Your task to perform on an android device: Find coffee shops on Maps Image 0: 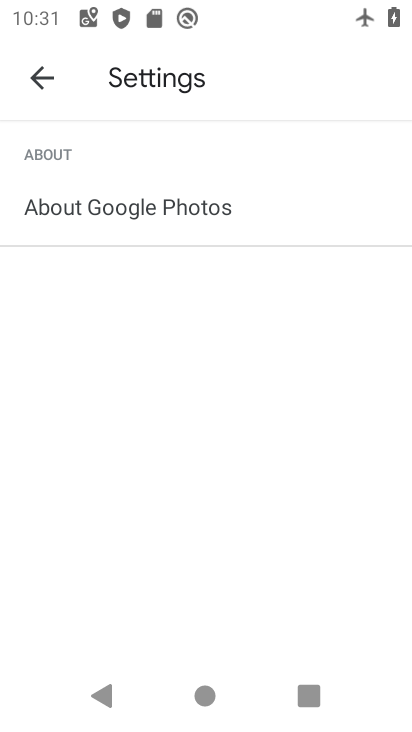
Step 0: press home button
Your task to perform on an android device: Find coffee shops on Maps Image 1: 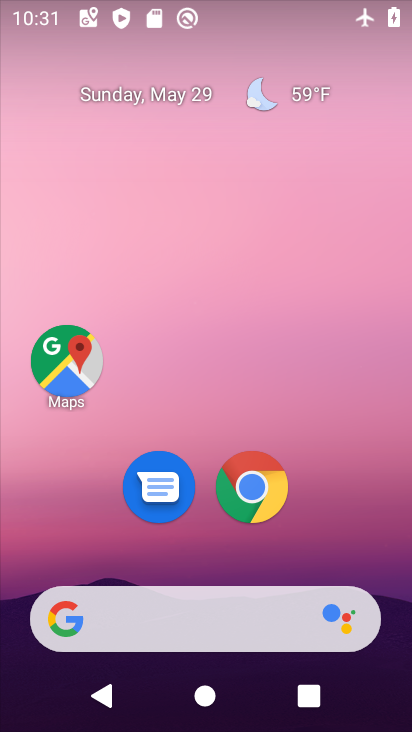
Step 1: click (75, 370)
Your task to perform on an android device: Find coffee shops on Maps Image 2: 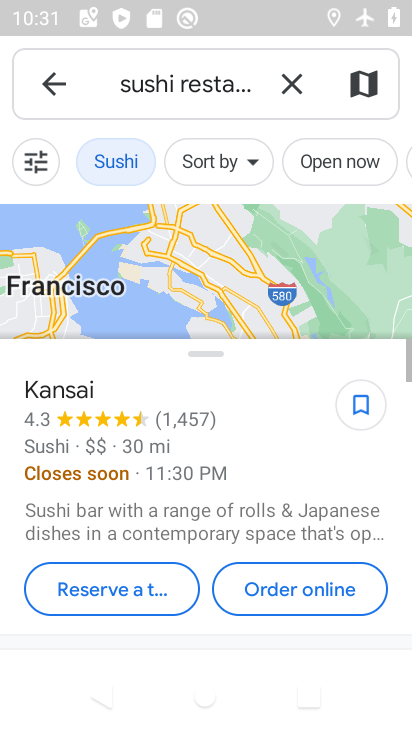
Step 2: click (293, 88)
Your task to perform on an android device: Find coffee shops on Maps Image 3: 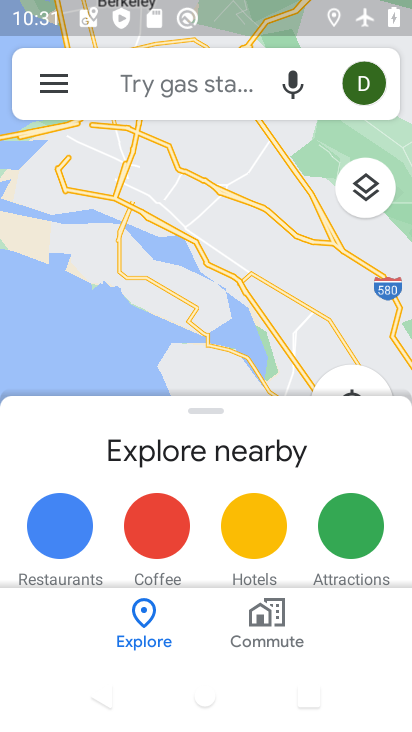
Step 3: click (154, 92)
Your task to perform on an android device: Find coffee shops on Maps Image 4: 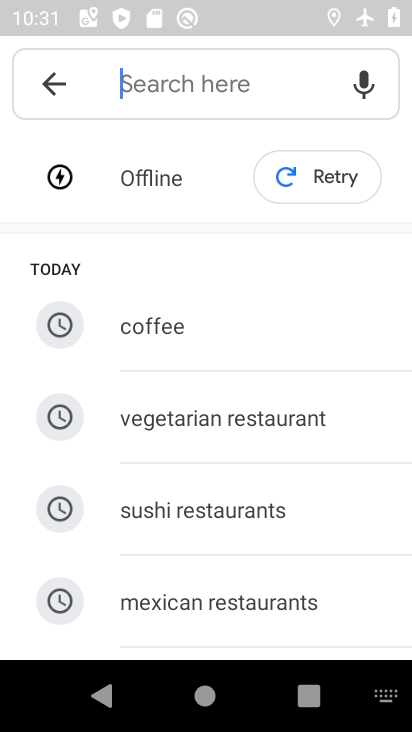
Step 4: type "coffee shops"
Your task to perform on an android device: Find coffee shops on Maps Image 5: 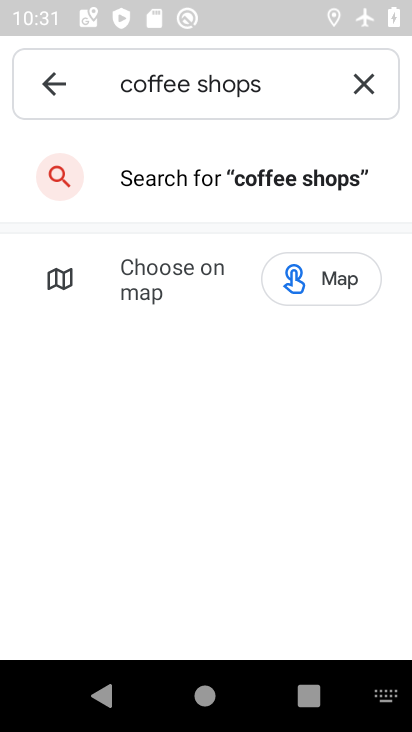
Step 5: click (243, 182)
Your task to perform on an android device: Find coffee shops on Maps Image 6: 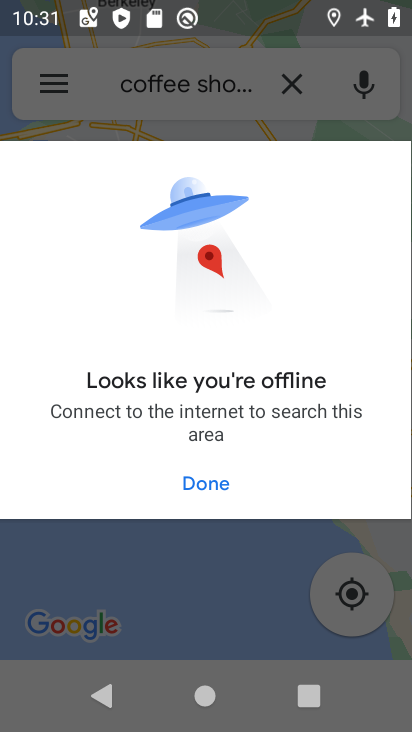
Step 6: task complete